Your task to perform on an android device: turn off wifi Image 0: 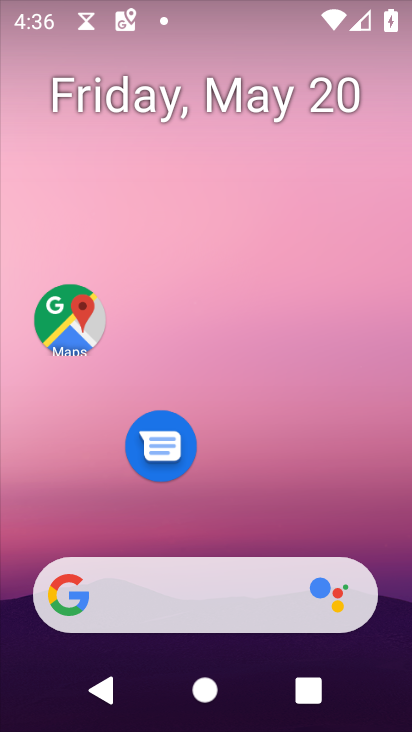
Step 0: drag from (231, 526) to (256, 0)
Your task to perform on an android device: turn off wifi Image 1: 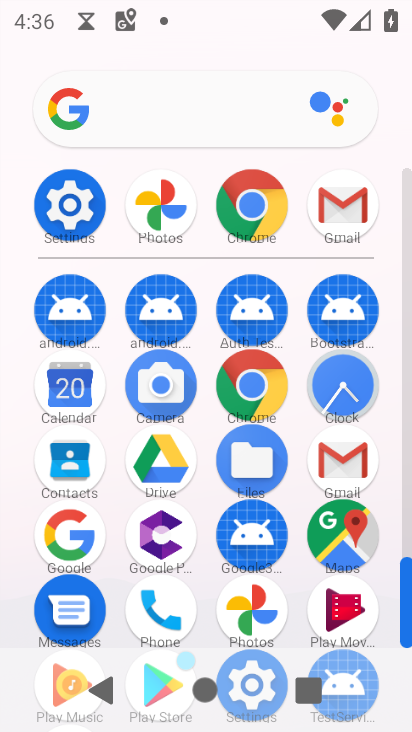
Step 1: click (72, 224)
Your task to perform on an android device: turn off wifi Image 2: 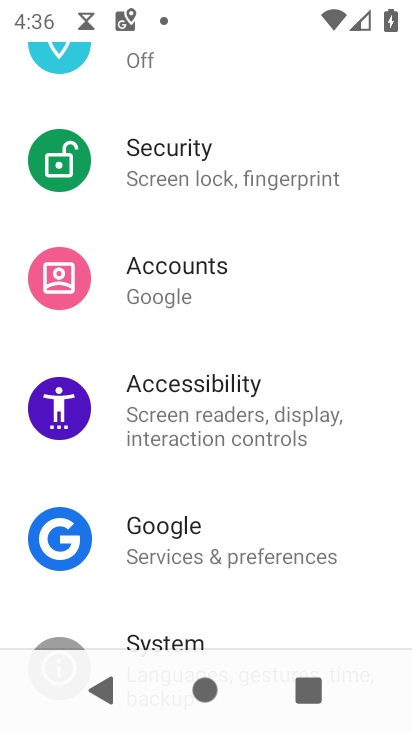
Step 2: drag from (239, 214) to (242, 591)
Your task to perform on an android device: turn off wifi Image 3: 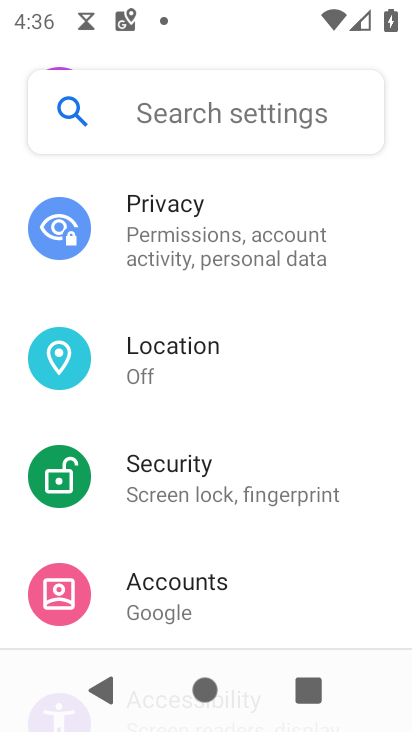
Step 3: drag from (241, 254) to (268, 556)
Your task to perform on an android device: turn off wifi Image 4: 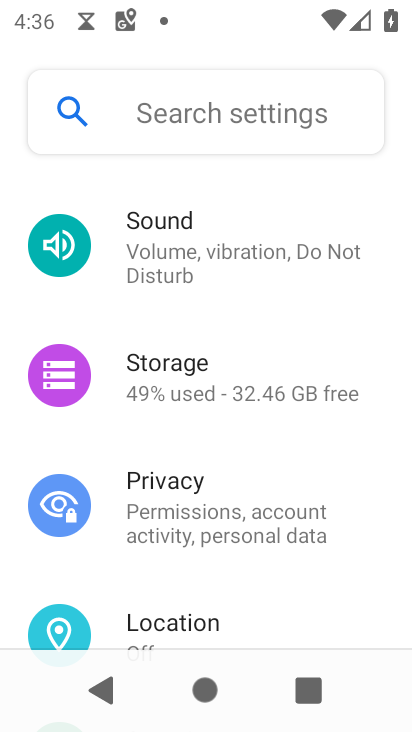
Step 4: drag from (286, 274) to (274, 613)
Your task to perform on an android device: turn off wifi Image 5: 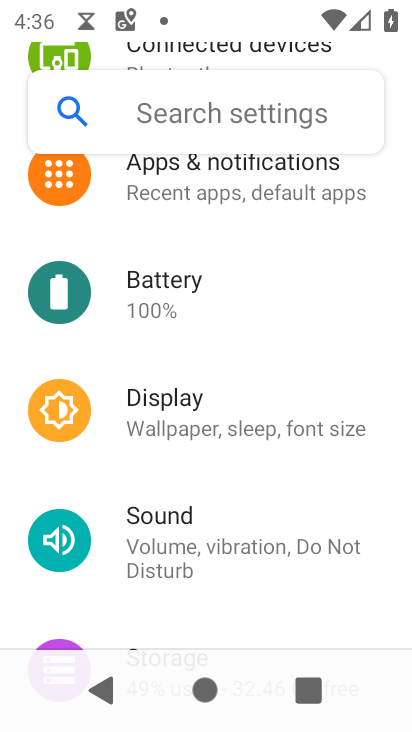
Step 5: drag from (232, 289) to (237, 525)
Your task to perform on an android device: turn off wifi Image 6: 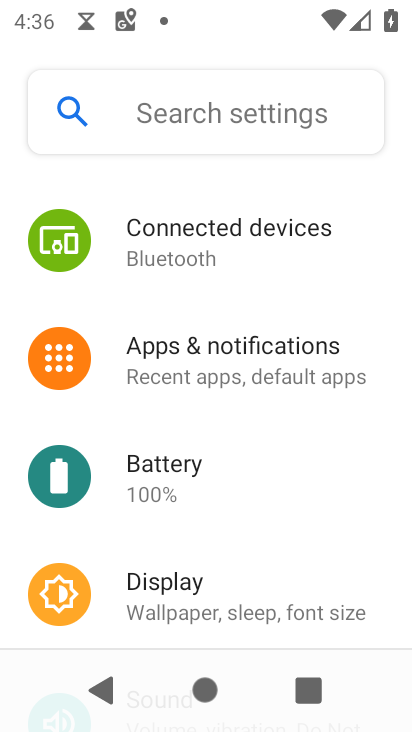
Step 6: drag from (226, 265) to (235, 573)
Your task to perform on an android device: turn off wifi Image 7: 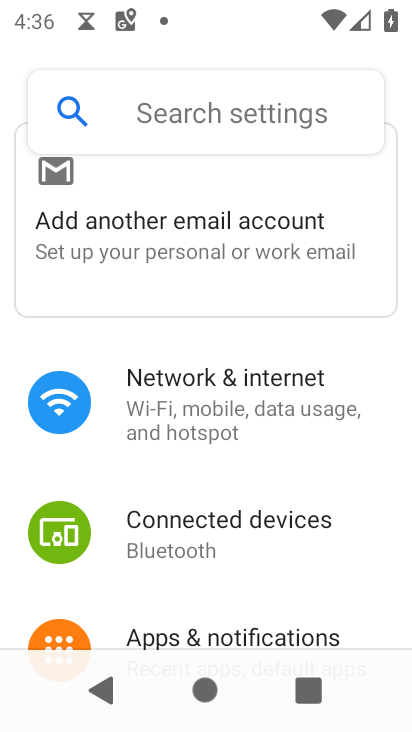
Step 7: click (207, 396)
Your task to perform on an android device: turn off wifi Image 8: 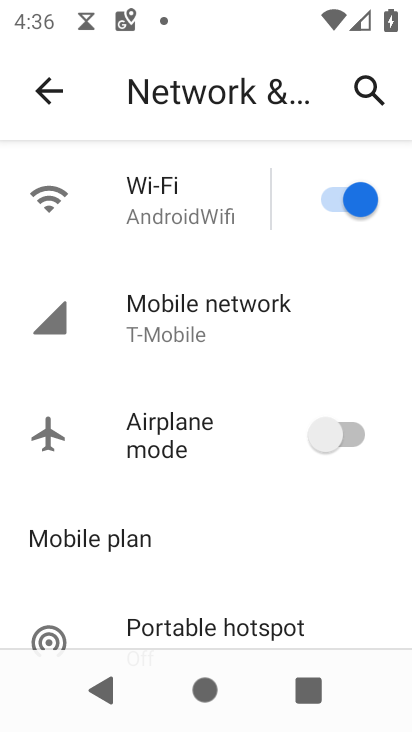
Step 8: click (308, 193)
Your task to perform on an android device: turn off wifi Image 9: 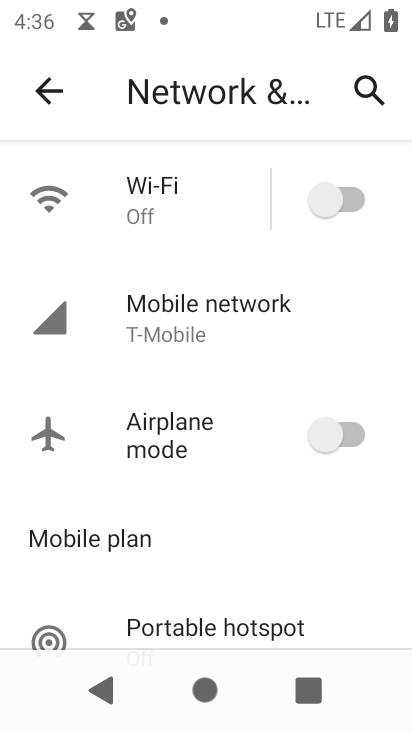
Step 9: task complete